Your task to perform on an android device: Open Chrome and go to the settings page Image 0: 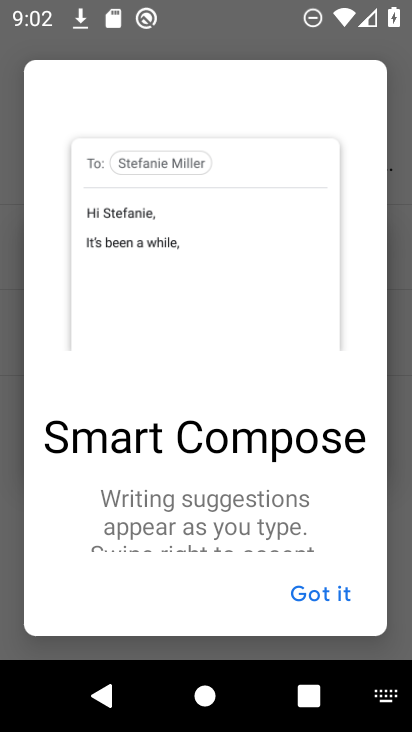
Step 0: press home button
Your task to perform on an android device: Open Chrome and go to the settings page Image 1: 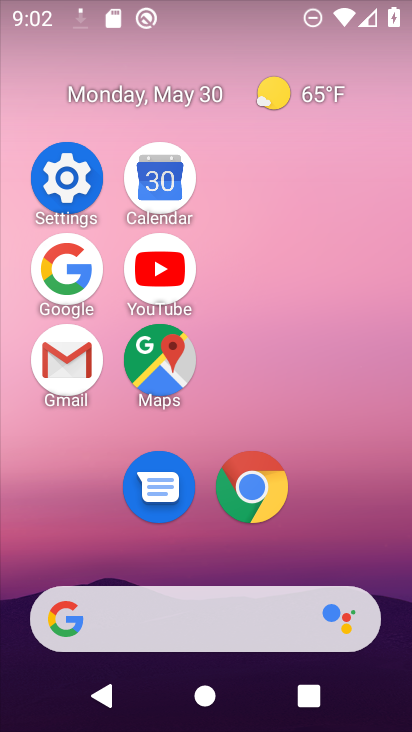
Step 1: click (273, 473)
Your task to perform on an android device: Open Chrome and go to the settings page Image 2: 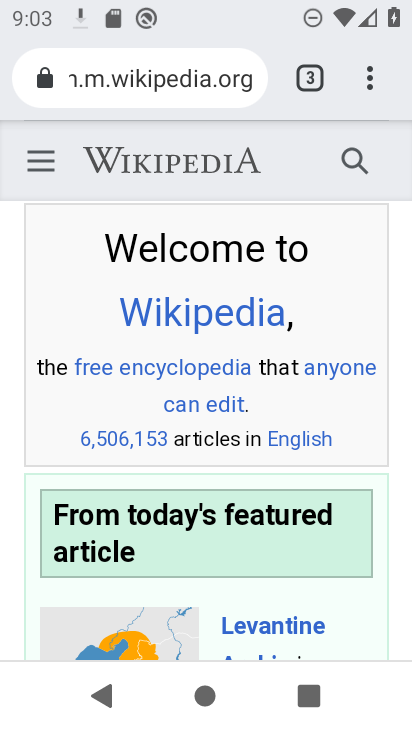
Step 2: click (384, 77)
Your task to perform on an android device: Open Chrome and go to the settings page Image 3: 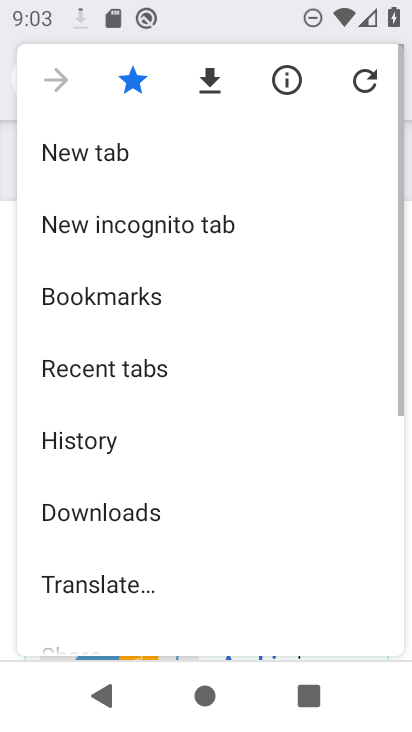
Step 3: drag from (247, 538) to (261, 129)
Your task to perform on an android device: Open Chrome and go to the settings page Image 4: 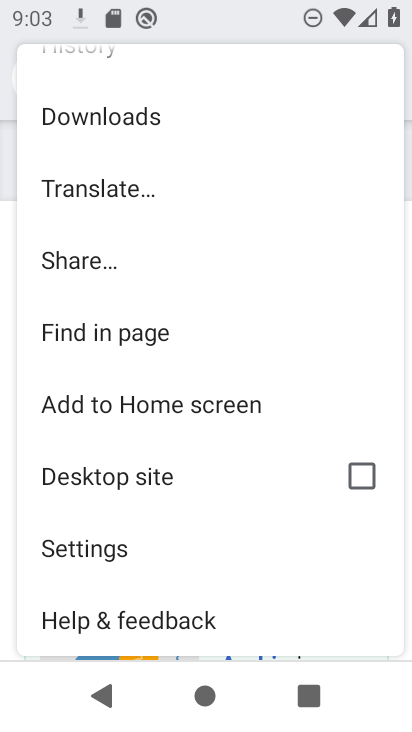
Step 4: click (124, 557)
Your task to perform on an android device: Open Chrome and go to the settings page Image 5: 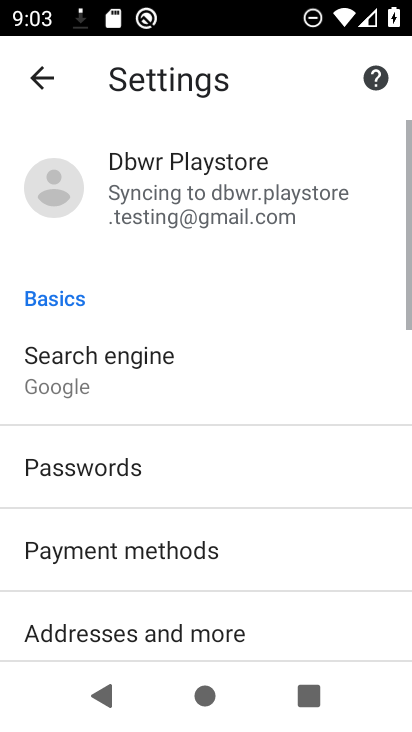
Step 5: task complete